Your task to perform on an android device: Go to Maps Image 0: 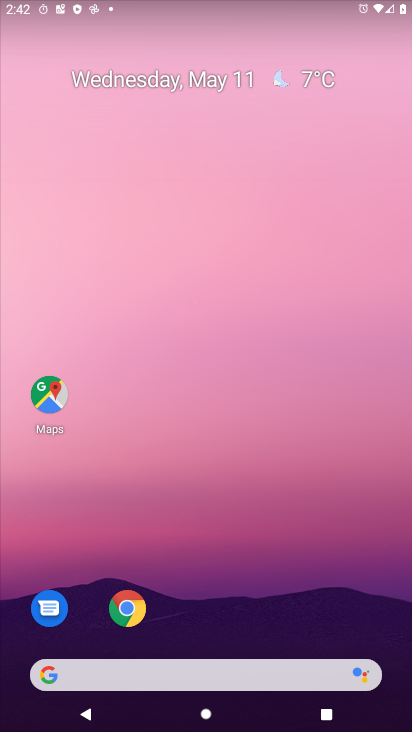
Step 0: click (43, 396)
Your task to perform on an android device: Go to Maps Image 1: 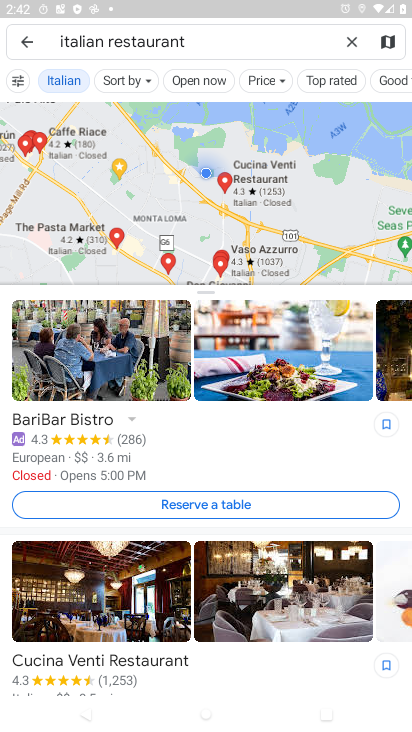
Step 1: task complete